Your task to perform on an android device: set an alarm Image 0: 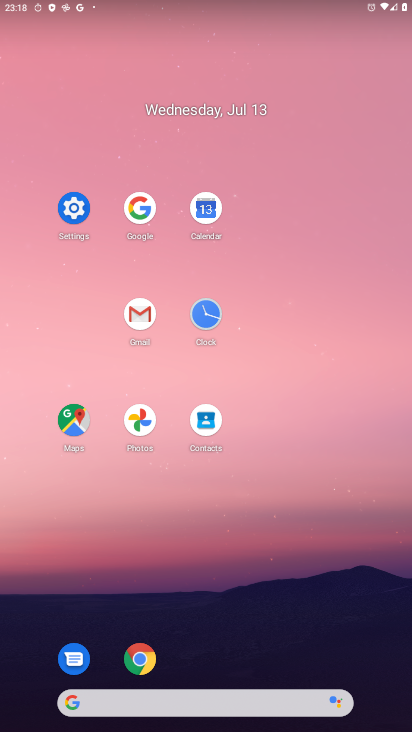
Step 0: click (208, 309)
Your task to perform on an android device: set an alarm Image 1: 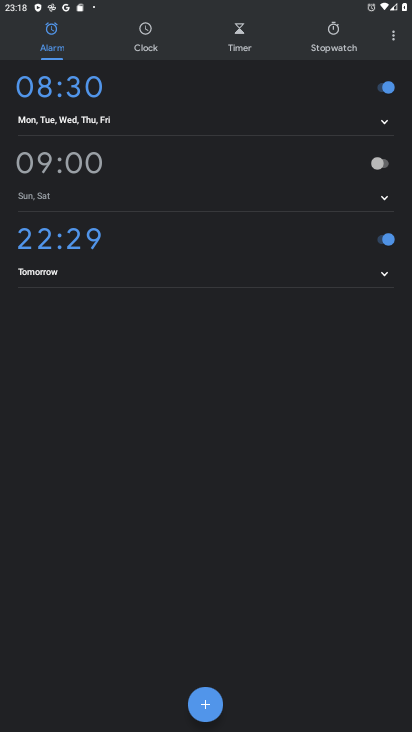
Step 1: click (386, 172)
Your task to perform on an android device: set an alarm Image 2: 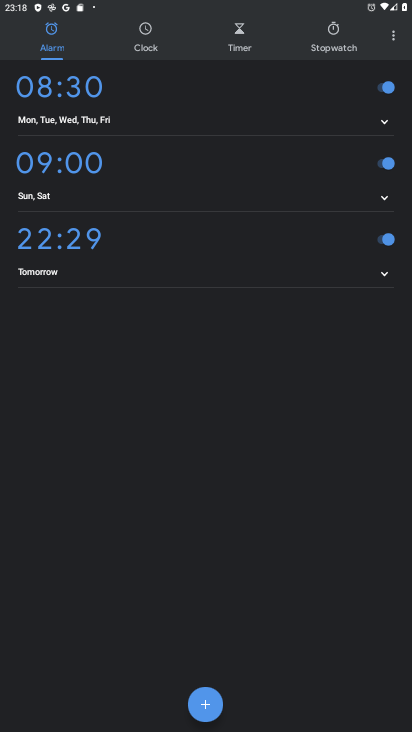
Step 2: task complete